Your task to perform on an android device: refresh tabs in the chrome app Image 0: 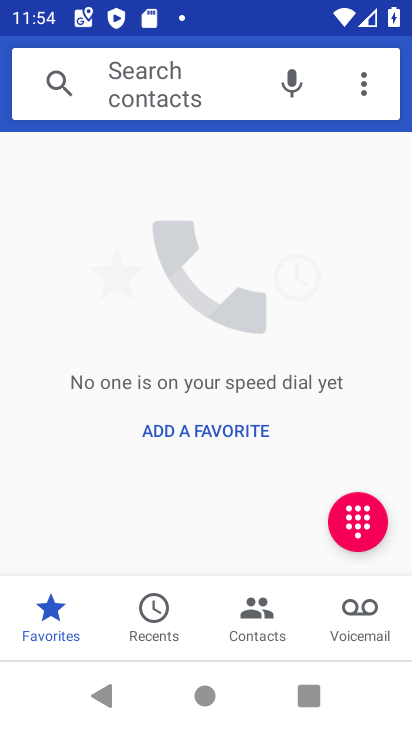
Step 0: press home button
Your task to perform on an android device: refresh tabs in the chrome app Image 1: 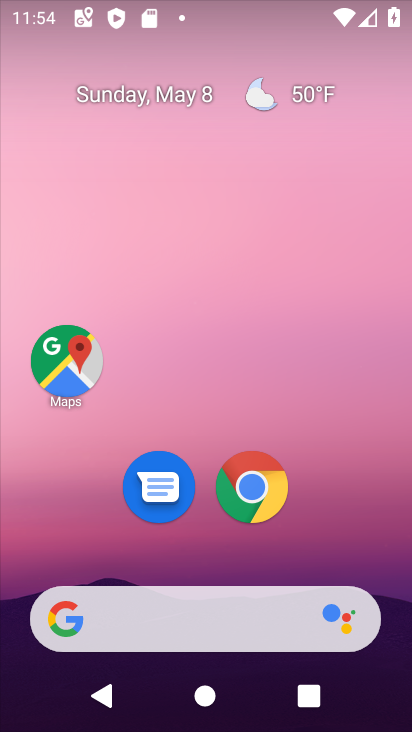
Step 1: click (256, 506)
Your task to perform on an android device: refresh tabs in the chrome app Image 2: 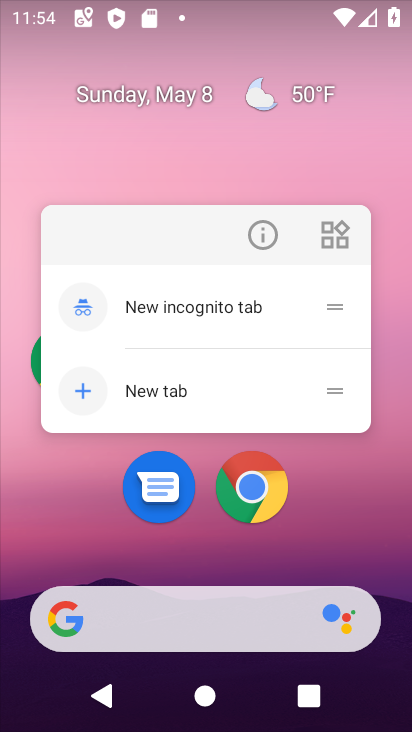
Step 2: click (276, 500)
Your task to perform on an android device: refresh tabs in the chrome app Image 3: 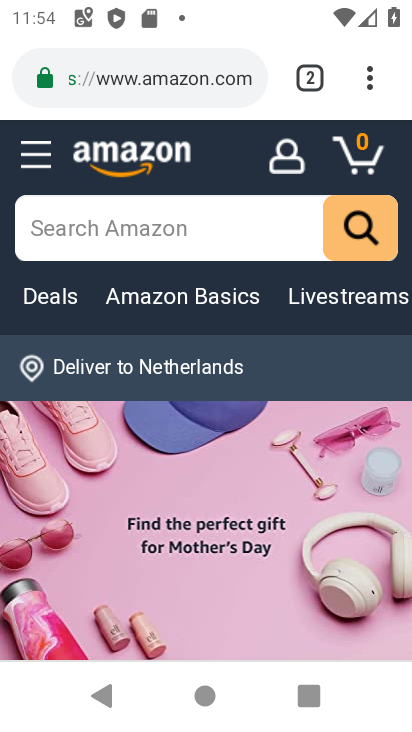
Step 3: click (365, 79)
Your task to perform on an android device: refresh tabs in the chrome app Image 4: 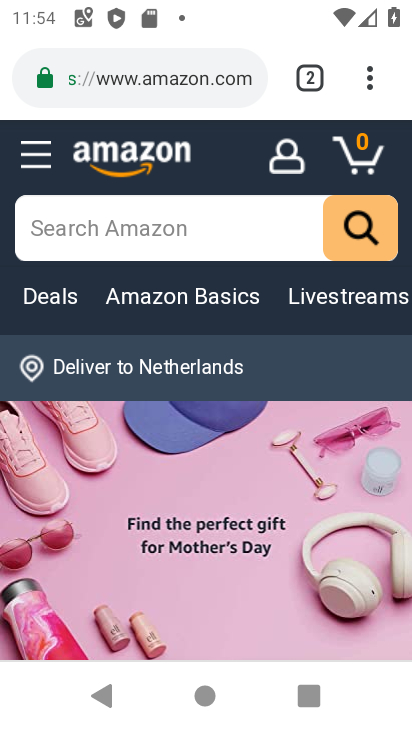
Step 4: task complete